Your task to perform on an android device: turn on showing notifications on the lock screen Image 0: 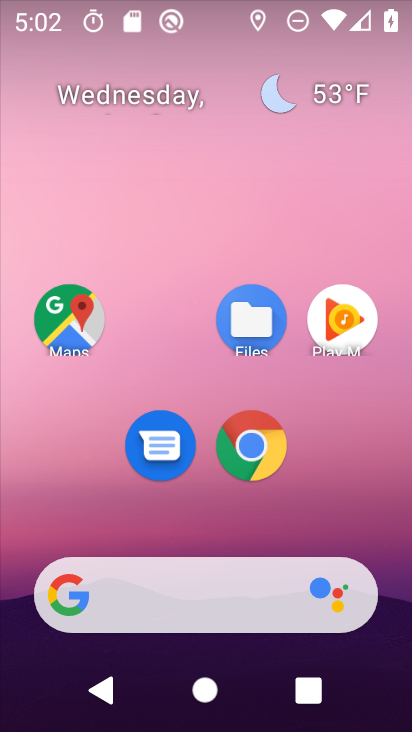
Step 0: drag from (317, 484) to (278, 187)
Your task to perform on an android device: turn on showing notifications on the lock screen Image 1: 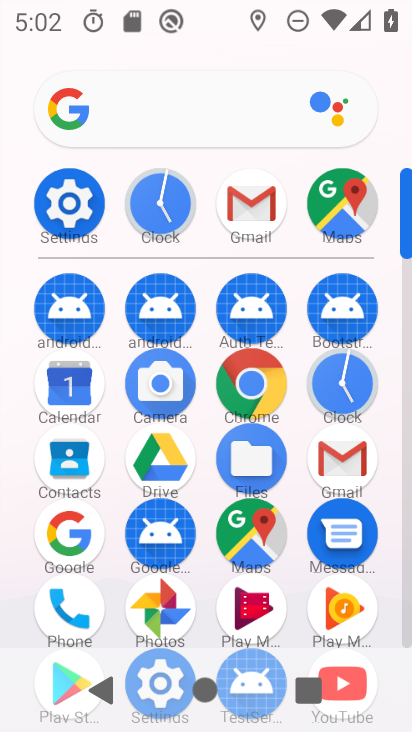
Step 1: click (71, 195)
Your task to perform on an android device: turn on showing notifications on the lock screen Image 2: 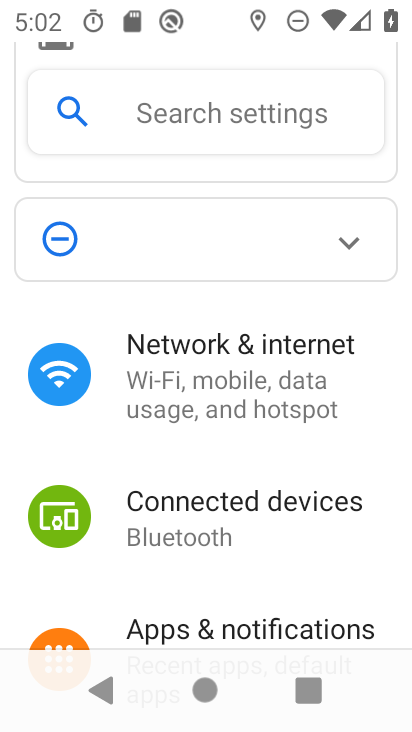
Step 2: drag from (237, 516) to (272, 176)
Your task to perform on an android device: turn on showing notifications on the lock screen Image 3: 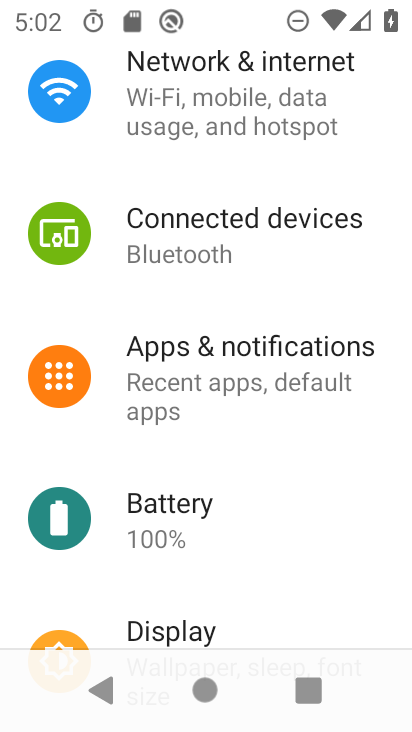
Step 3: click (270, 348)
Your task to perform on an android device: turn on showing notifications on the lock screen Image 4: 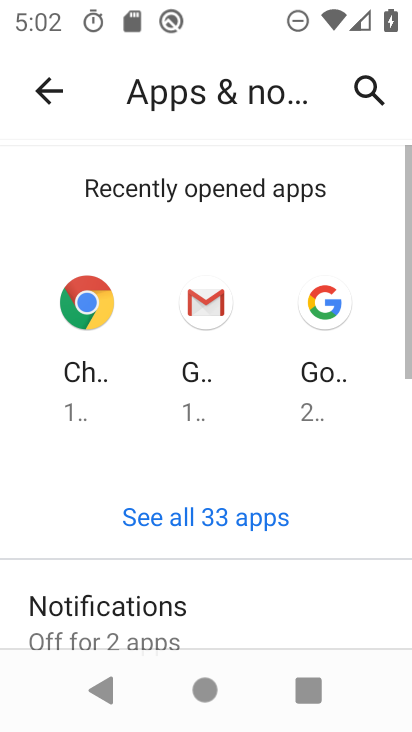
Step 4: drag from (182, 567) to (223, 211)
Your task to perform on an android device: turn on showing notifications on the lock screen Image 5: 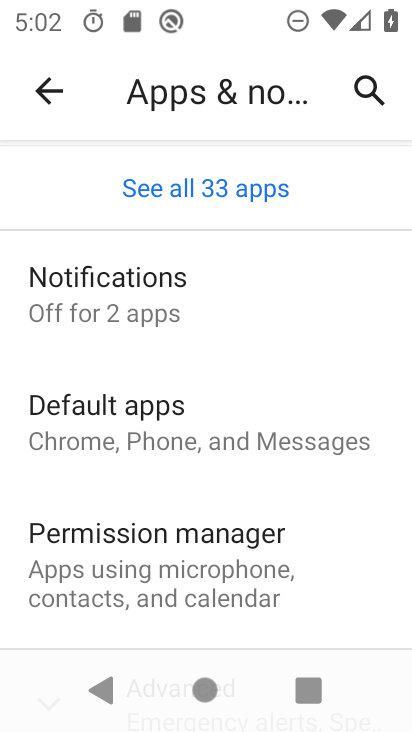
Step 5: drag from (236, 338) to (264, 153)
Your task to perform on an android device: turn on showing notifications on the lock screen Image 6: 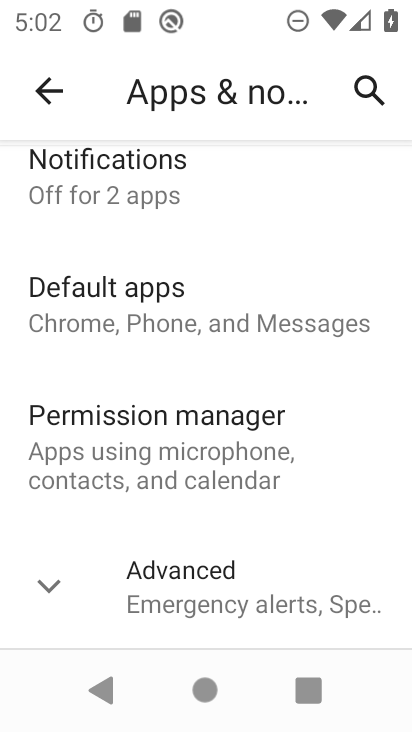
Step 6: click (219, 580)
Your task to perform on an android device: turn on showing notifications on the lock screen Image 7: 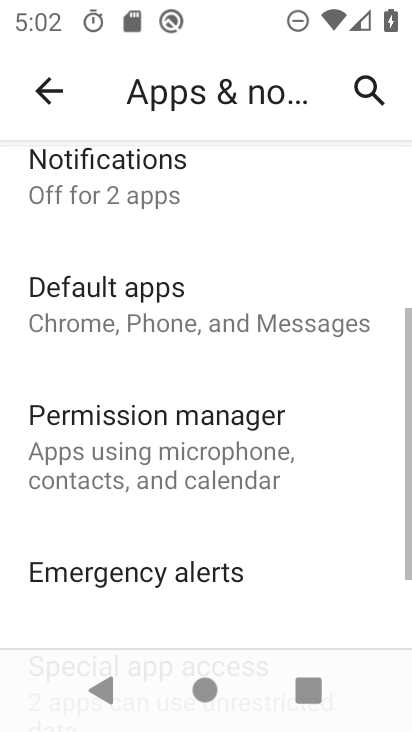
Step 7: drag from (217, 581) to (273, 277)
Your task to perform on an android device: turn on showing notifications on the lock screen Image 8: 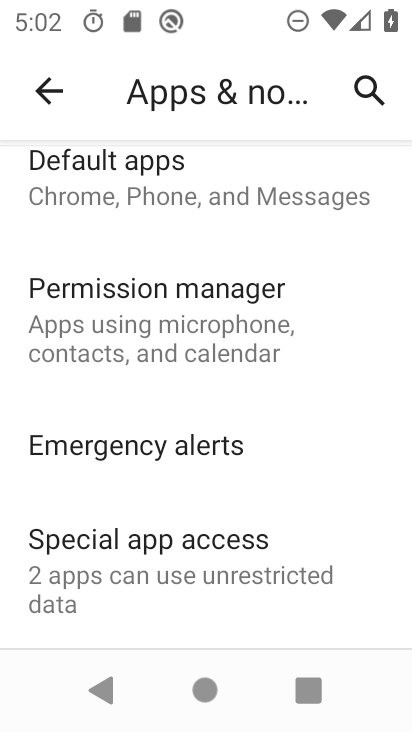
Step 8: drag from (321, 176) to (239, 511)
Your task to perform on an android device: turn on showing notifications on the lock screen Image 9: 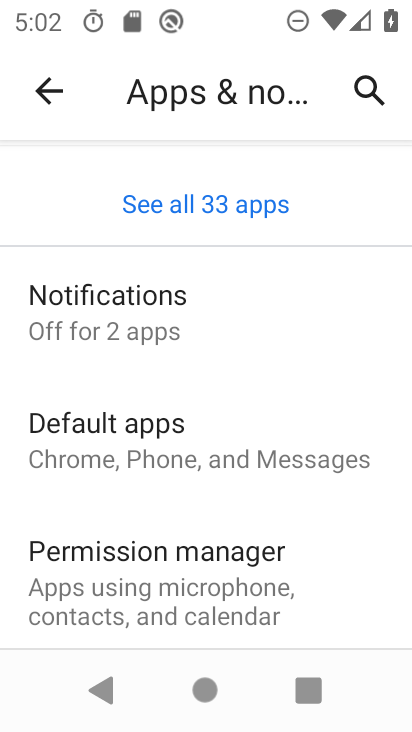
Step 9: click (249, 288)
Your task to perform on an android device: turn on showing notifications on the lock screen Image 10: 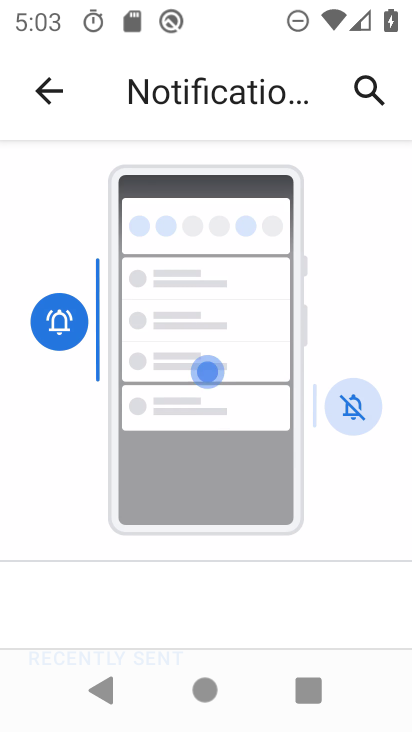
Step 10: drag from (295, 522) to (345, 160)
Your task to perform on an android device: turn on showing notifications on the lock screen Image 11: 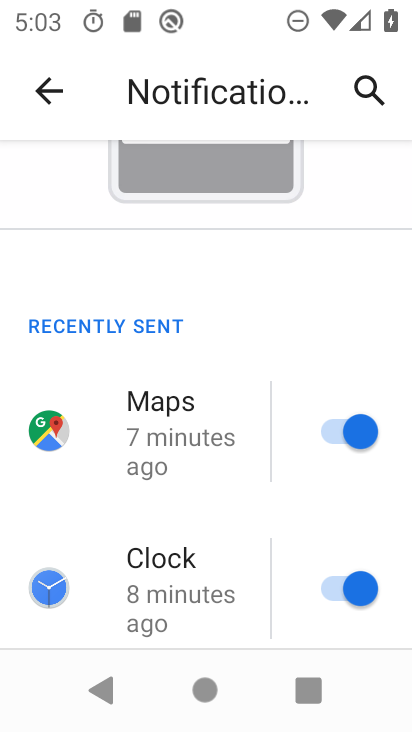
Step 11: drag from (219, 584) to (339, 104)
Your task to perform on an android device: turn on showing notifications on the lock screen Image 12: 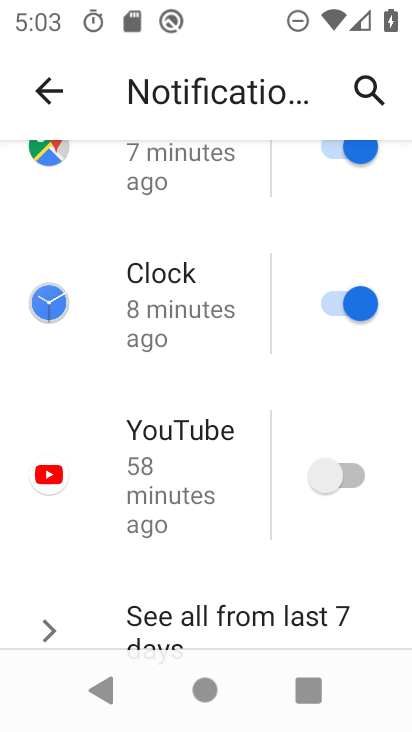
Step 12: drag from (204, 508) to (333, 169)
Your task to perform on an android device: turn on showing notifications on the lock screen Image 13: 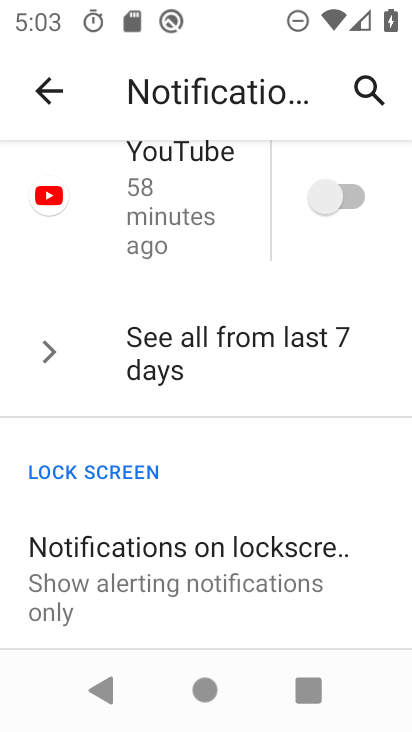
Step 13: click (260, 561)
Your task to perform on an android device: turn on showing notifications on the lock screen Image 14: 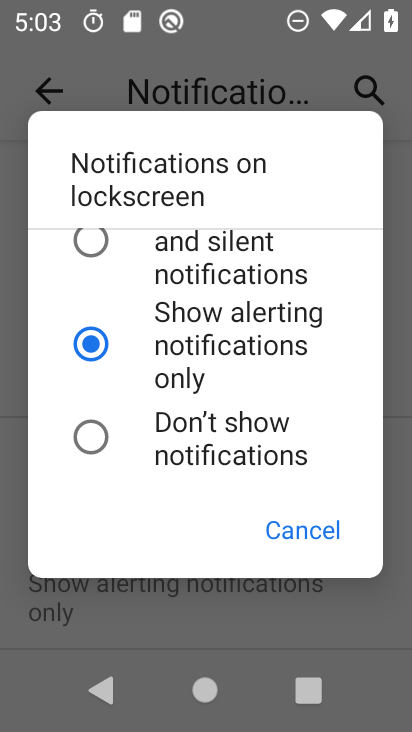
Step 14: click (121, 264)
Your task to perform on an android device: turn on showing notifications on the lock screen Image 15: 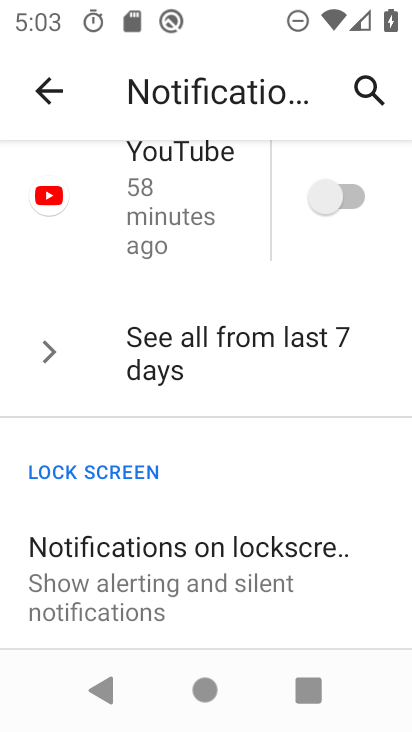
Step 15: task complete